Your task to perform on an android device: change your default location settings in chrome Image 0: 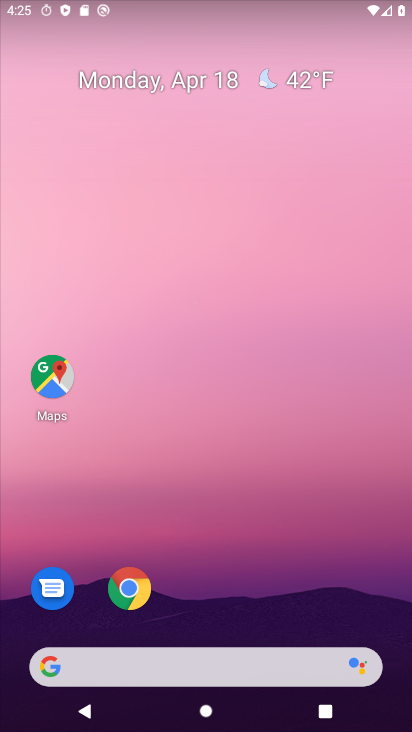
Step 0: click (130, 595)
Your task to perform on an android device: change your default location settings in chrome Image 1: 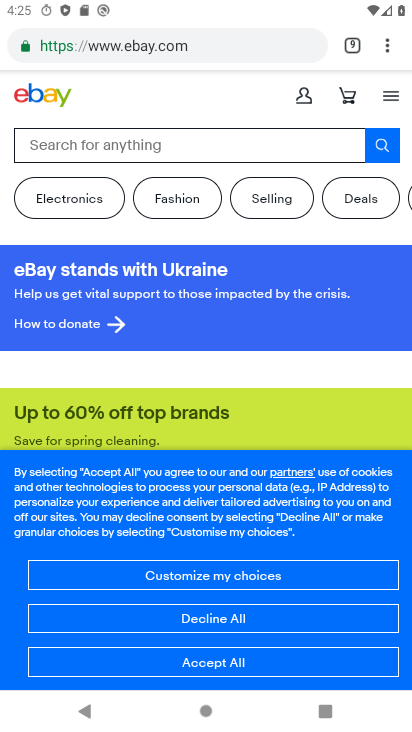
Step 1: click (387, 42)
Your task to perform on an android device: change your default location settings in chrome Image 2: 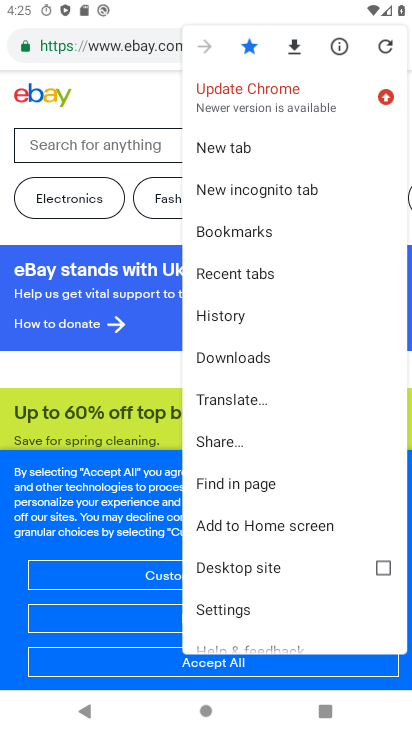
Step 2: click (242, 600)
Your task to perform on an android device: change your default location settings in chrome Image 3: 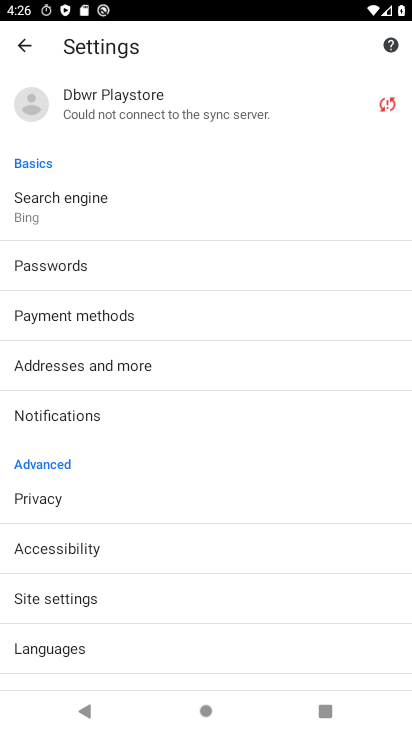
Step 3: drag from (138, 477) to (158, 32)
Your task to perform on an android device: change your default location settings in chrome Image 4: 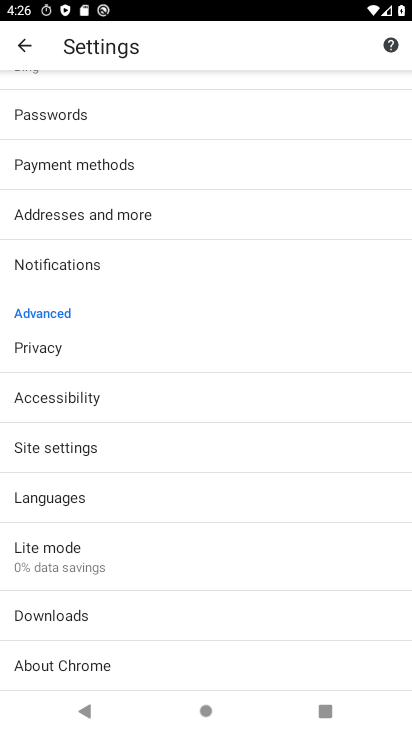
Step 4: drag from (161, 132) to (195, 717)
Your task to perform on an android device: change your default location settings in chrome Image 5: 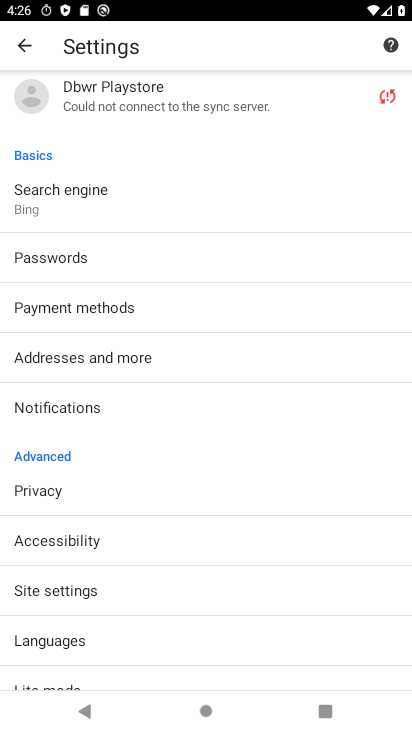
Step 5: click (82, 585)
Your task to perform on an android device: change your default location settings in chrome Image 6: 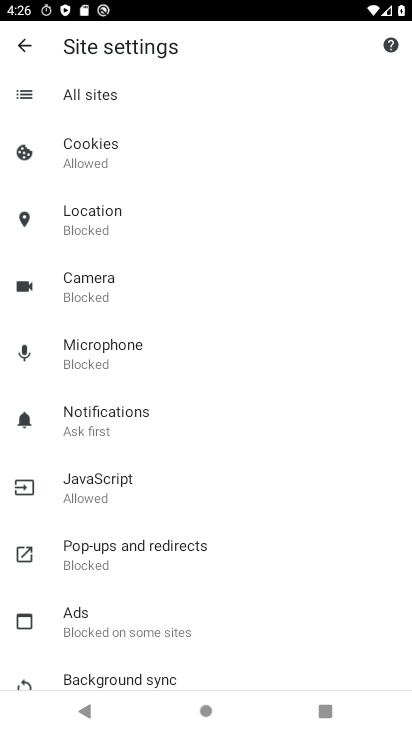
Step 6: click (162, 225)
Your task to perform on an android device: change your default location settings in chrome Image 7: 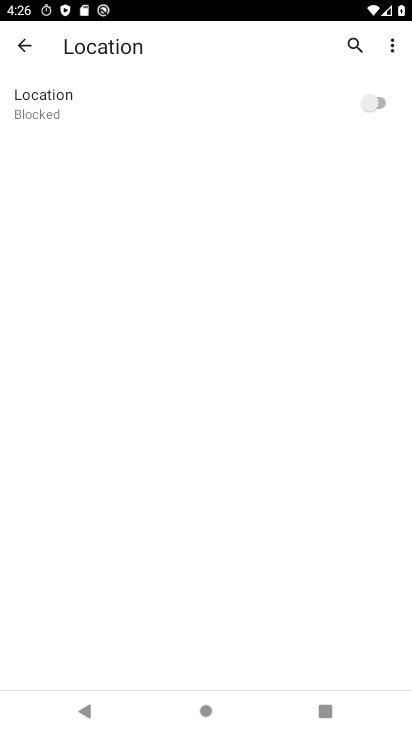
Step 7: click (381, 106)
Your task to perform on an android device: change your default location settings in chrome Image 8: 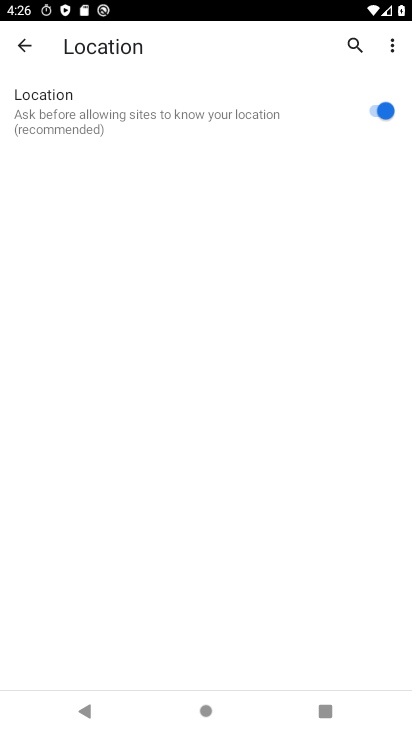
Step 8: task complete